Your task to perform on an android device: Do I have any events this weekend? Image 0: 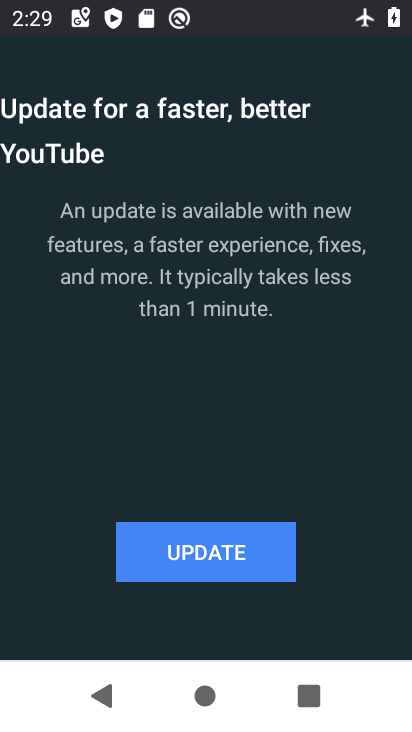
Step 0: press home button
Your task to perform on an android device: Do I have any events this weekend? Image 1: 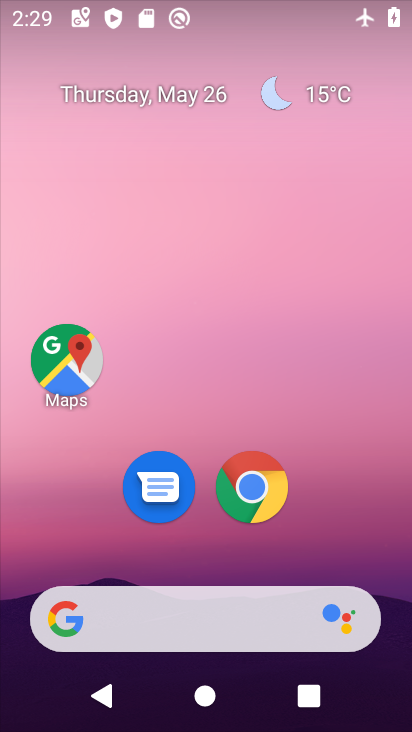
Step 1: drag from (222, 547) to (225, 233)
Your task to perform on an android device: Do I have any events this weekend? Image 2: 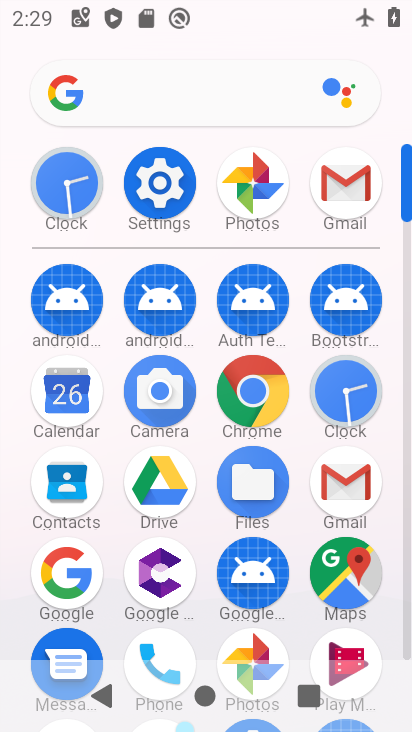
Step 2: drag from (112, 534) to (117, 482)
Your task to perform on an android device: Do I have any events this weekend? Image 3: 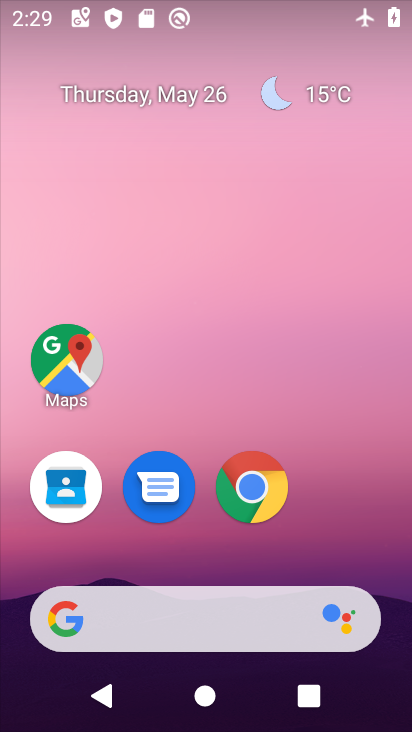
Step 3: drag from (204, 560) to (204, 215)
Your task to perform on an android device: Do I have any events this weekend? Image 4: 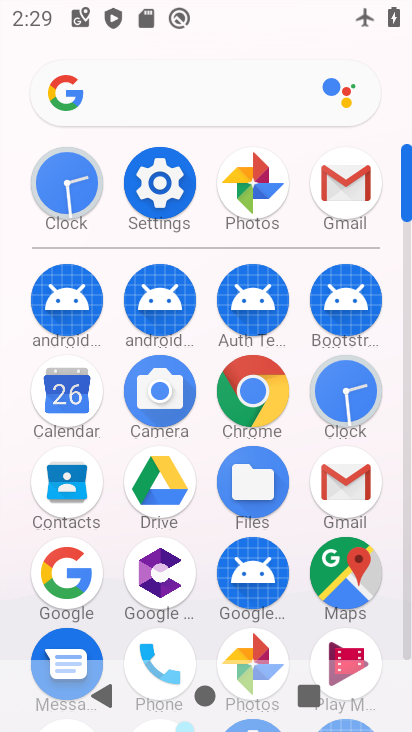
Step 4: click (65, 409)
Your task to perform on an android device: Do I have any events this weekend? Image 5: 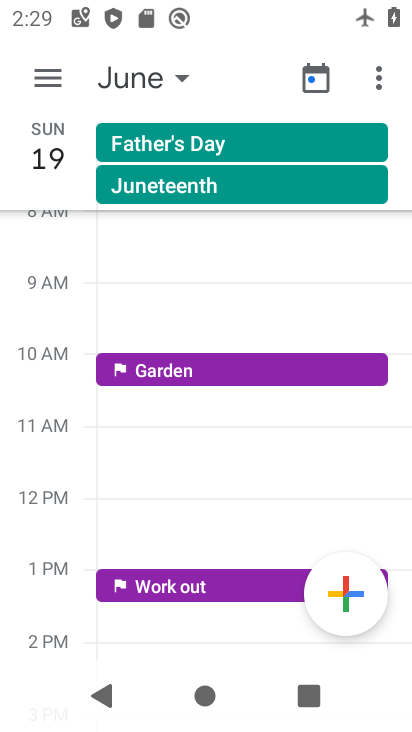
Step 5: click (153, 78)
Your task to perform on an android device: Do I have any events this weekend? Image 6: 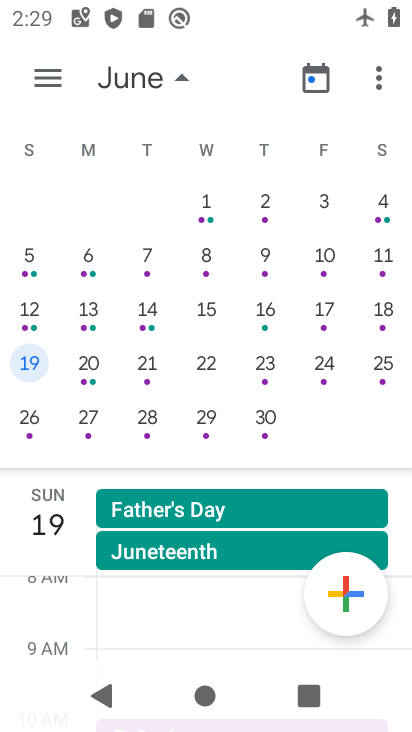
Step 6: drag from (51, 324) to (379, 320)
Your task to perform on an android device: Do I have any events this weekend? Image 7: 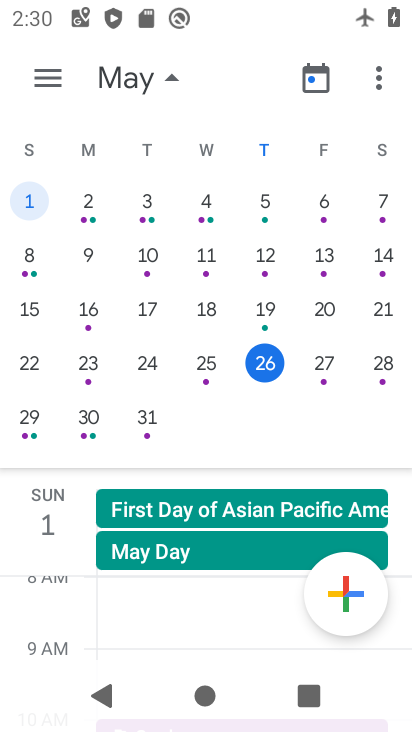
Step 7: click (385, 370)
Your task to perform on an android device: Do I have any events this weekend? Image 8: 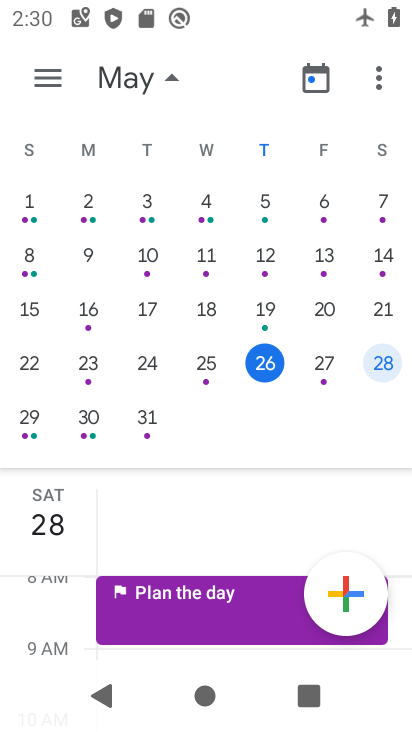
Step 8: click (371, 376)
Your task to perform on an android device: Do I have any events this weekend? Image 9: 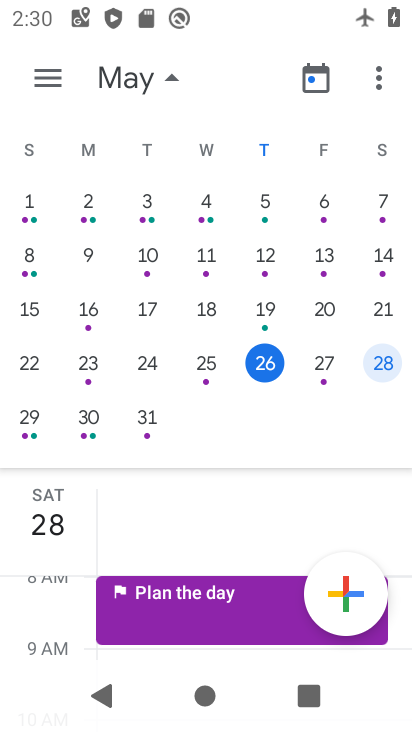
Step 9: click (370, 368)
Your task to perform on an android device: Do I have any events this weekend? Image 10: 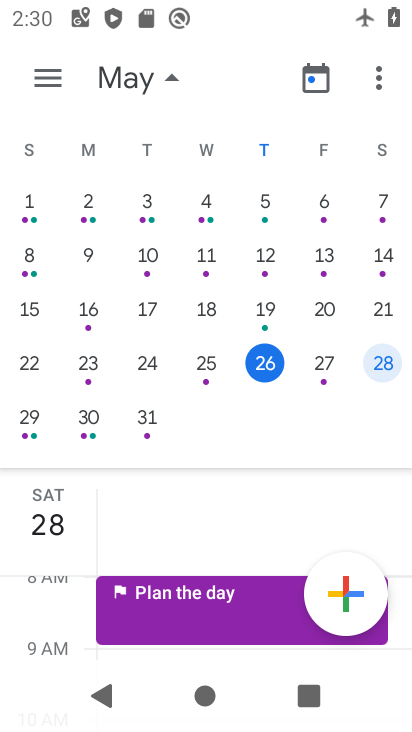
Step 10: task complete